Your task to perform on an android device: check google app version Image 0: 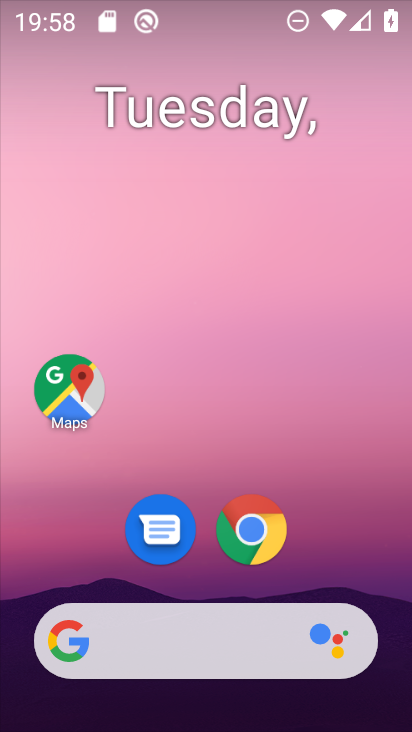
Step 0: drag from (210, 628) to (349, 62)
Your task to perform on an android device: check google app version Image 1: 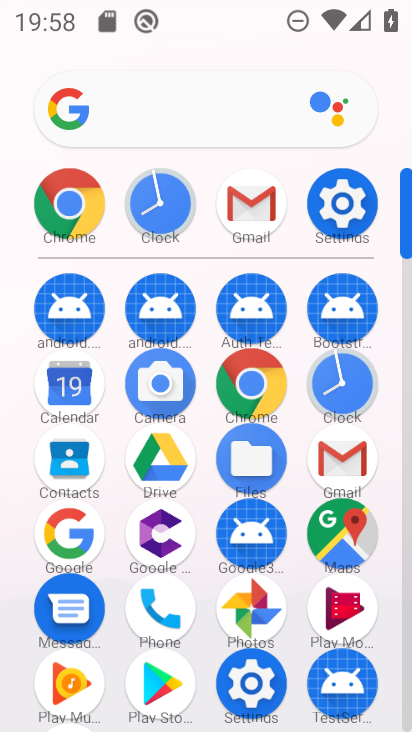
Step 1: click (73, 539)
Your task to perform on an android device: check google app version Image 2: 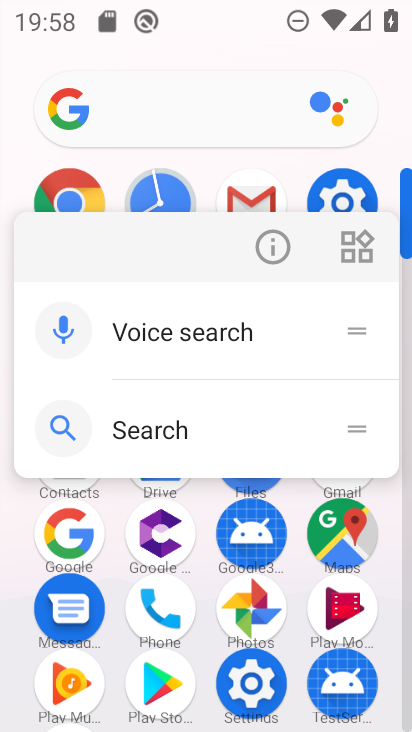
Step 2: click (275, 251)
Your task to perform on an android device: check google app version Image 3: 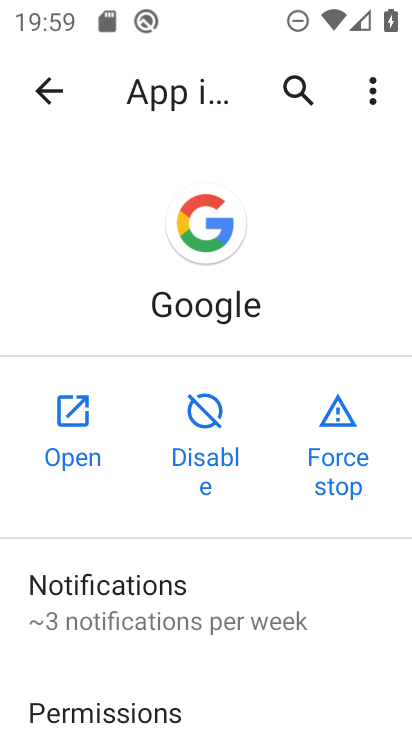
Step 3: drag from (150, 678) to (277, 115)
Your task to perform on an android device: check google app version Image 4: 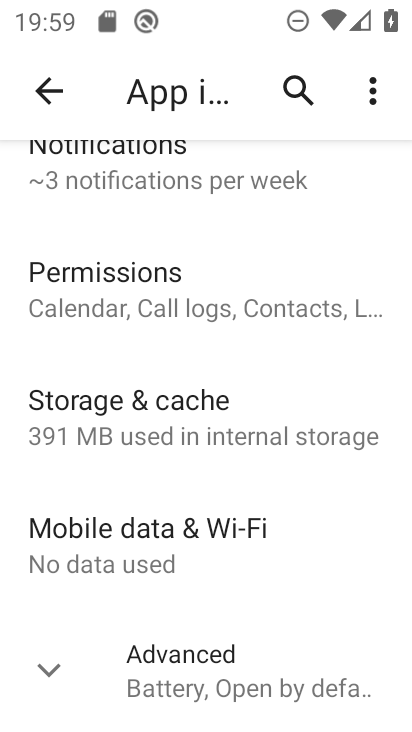
Step 4: drag from (150, 602) to (286, 129)
Your task to perform on an android device: check google app version Image 5: 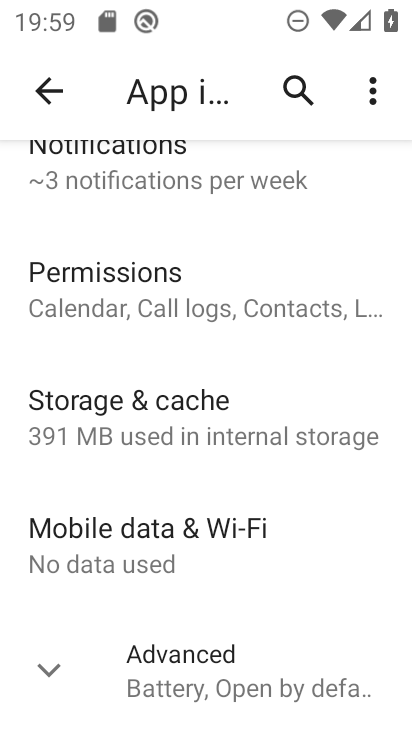
Step 5: click (95, 664)
Your task to perform on an android device: check google app version Image 6: 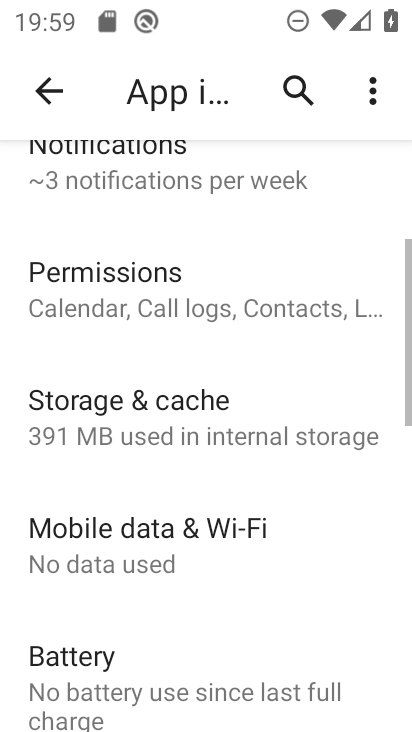
Step 6: task complete